Your task to perform on an android device: What's on my calendar today? Image 0: 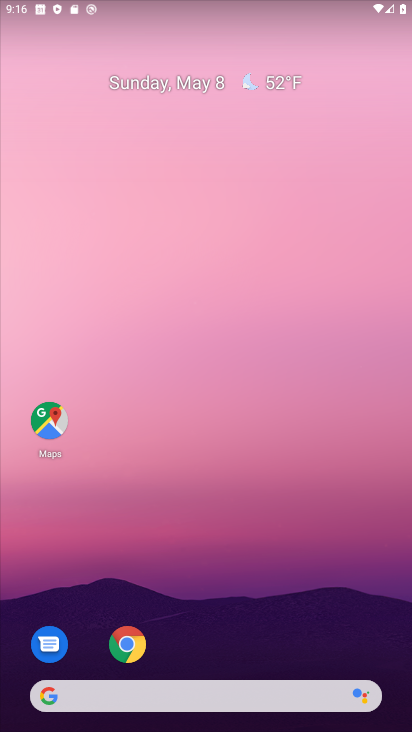
Step 0: click (202, 3)
Your task to perform on an android device: What's on my calendar today? Image 1: 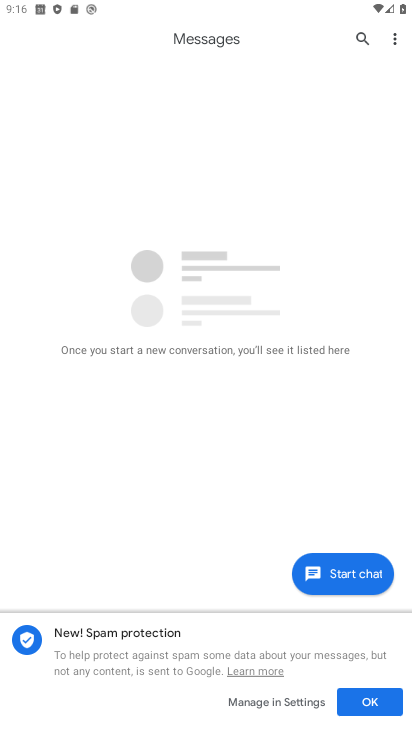
Step 1: press home button
Your task to perform on an android device: What's on my calendar today? Image 2: 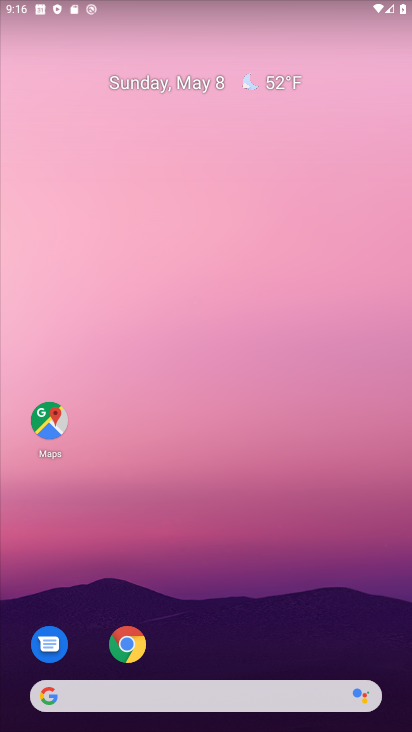
Step 2: drag from (200, 653) to (269, 10)
Your task to perform on an android device: What's on my calendar today? Image 3: 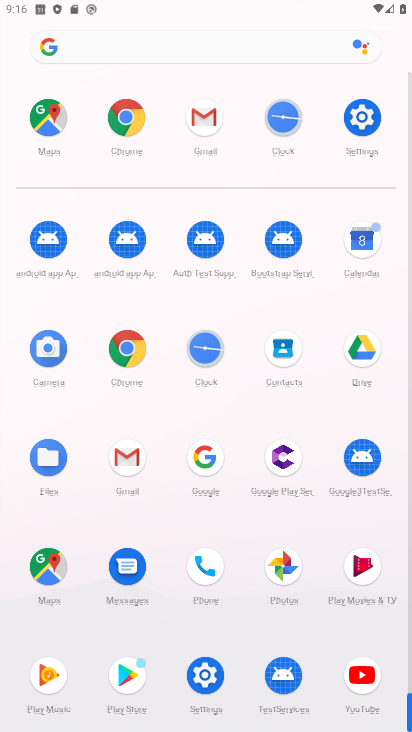
Step 3: click (355, 251)
Your task to perform on an android device: What's on my calendar today? Image 4: 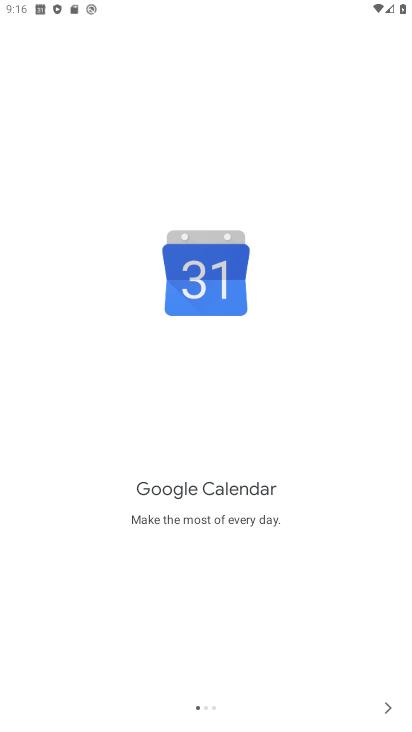
Step 4: click (387, 707)
Your task to perform on an android device: What's on my calendar today? Image 5: 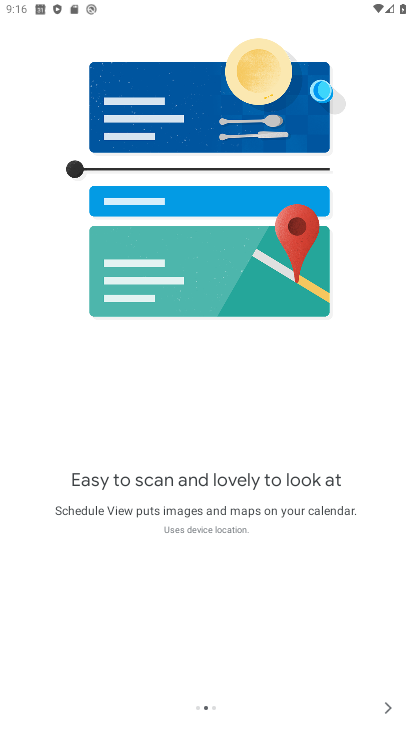
Step 5: click (385, 698)
Your task to perform on an android device: What's on my calendar today? Image 6: 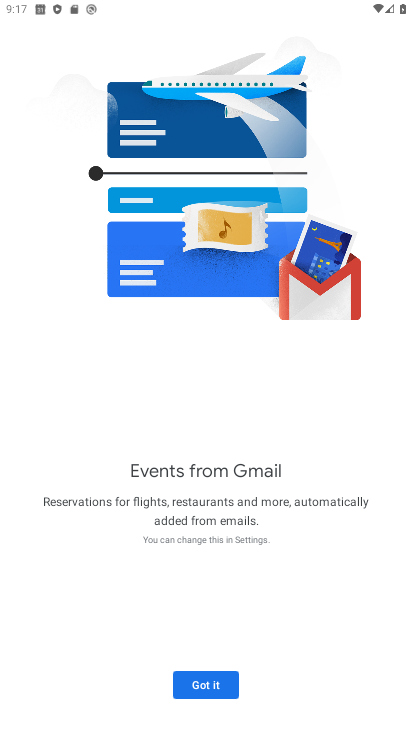
Step 6: click (190, 699)
Your task to perform on an android device: What's on my calendar today? Image 7: 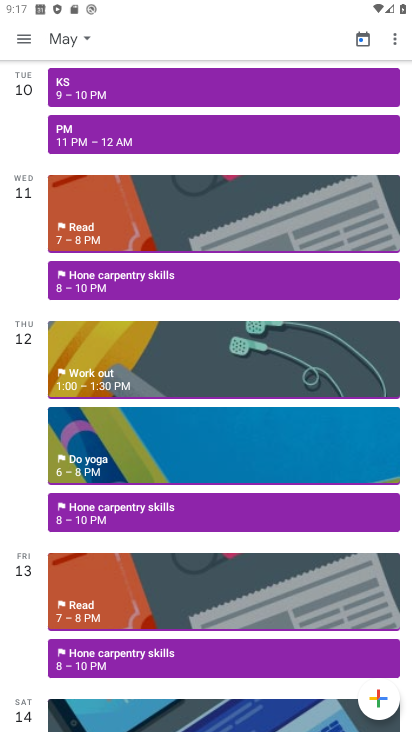
Step 7: click (73, 45)
Your task to perform on an android device: What's on my calendar today? Image 8: 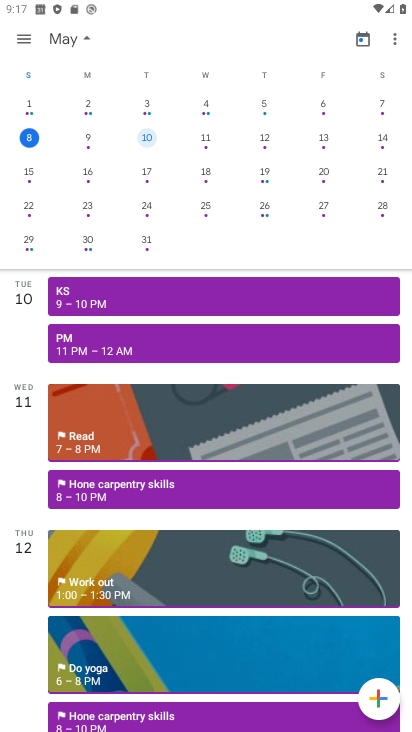
Step 8: click (151, 143)
Your task to perform on an android device: What's on my calendar today? Image 9: 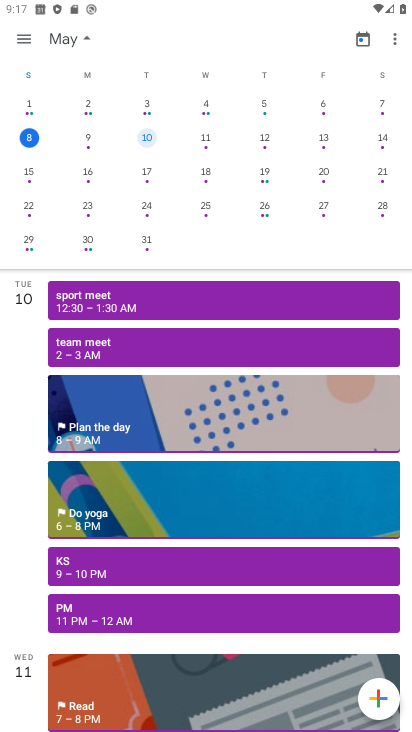
Step 9: click (150, 136)
Your task to perform on an android device: What's on my calendar today? Image 10: 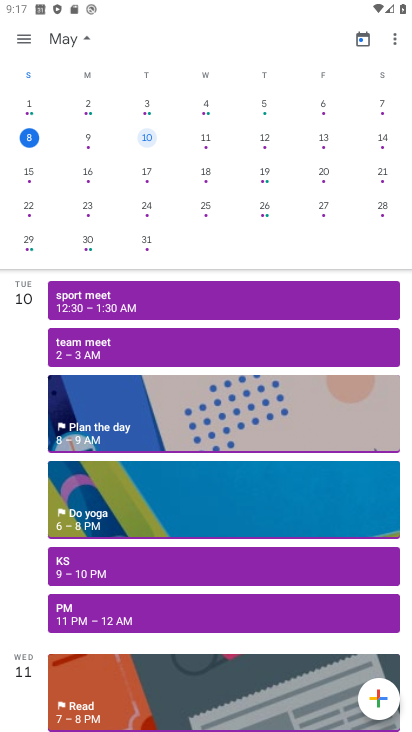
Step 10: click (150, 136)
Your task to perform on an android device: What's on my calendar today? Image 11: 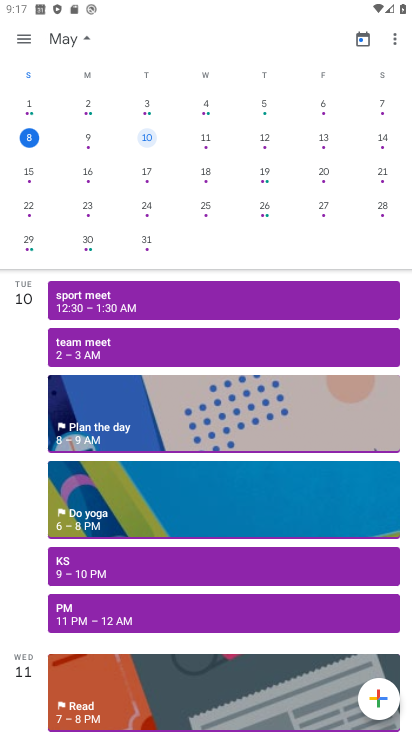
Step 11: click (148, 133)
Your task to perform on an android device: What's on my calendar today? Image 12: 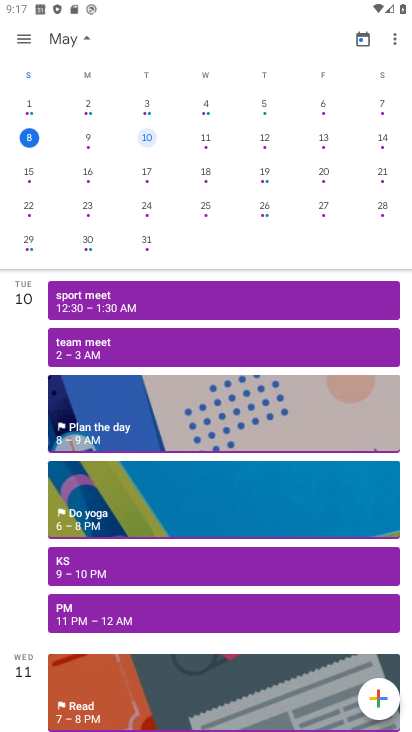
Step 12: click (30, 135)
Your task to perform on an android device: What's on my calendar today? Image 13: 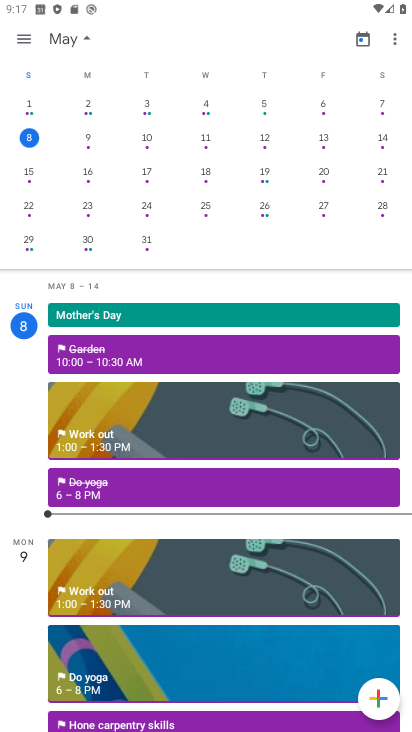
Step 13: task complete